Your task to perform on an android device: set default search engine in the chrome app Image 0: 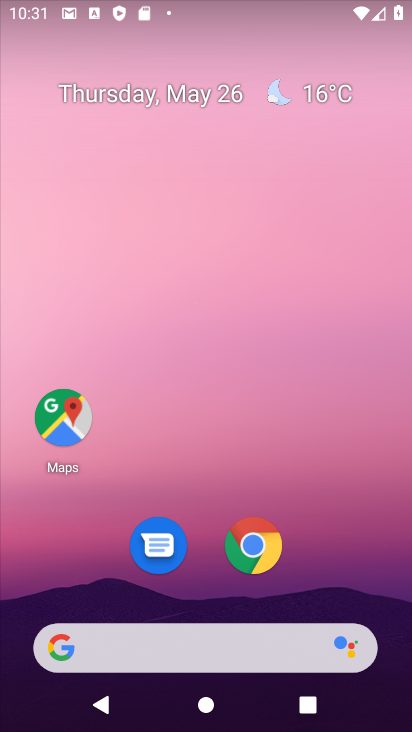
Step 0: press home button
Your task to perform on an android device: set default search engine in the chrome app Image 1: 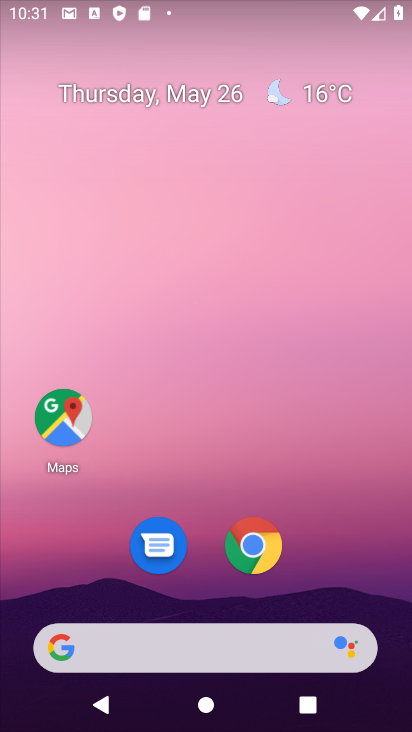
Step 1: click (245, 549)
Your task to perform on an android device: set default search engine in the chrome app Image 2: 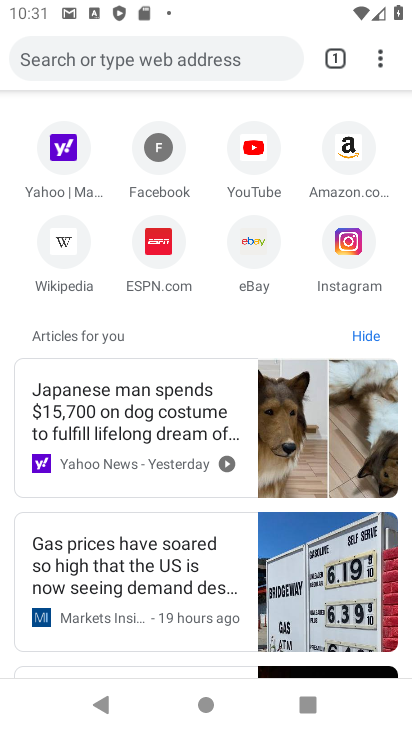
Step 2: drag from (385, 56) to (183, 499)
Your task to perform on an android device: set default search engine in the chrome app Image 3: 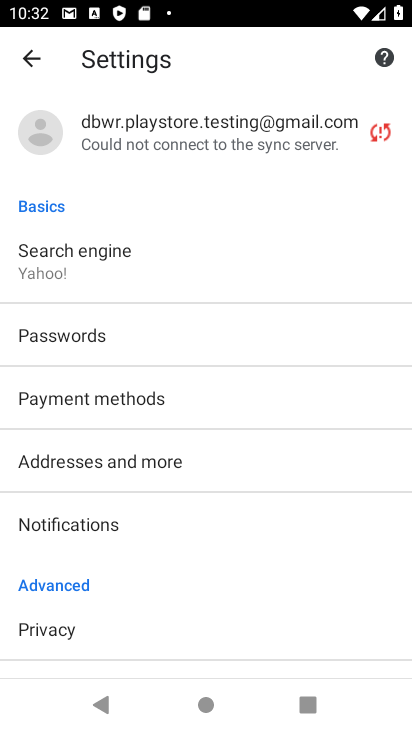
Step 3: click (36, 267)
Your task to perform on an android device: set default search engine in the chrome app Image 4: 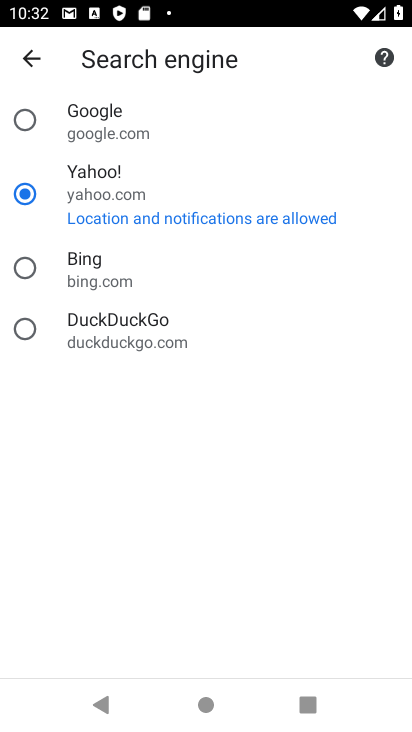
Step 4: click (27, 277)
Your task to perform on an android device: set default search engine in the chrome app Image 5: 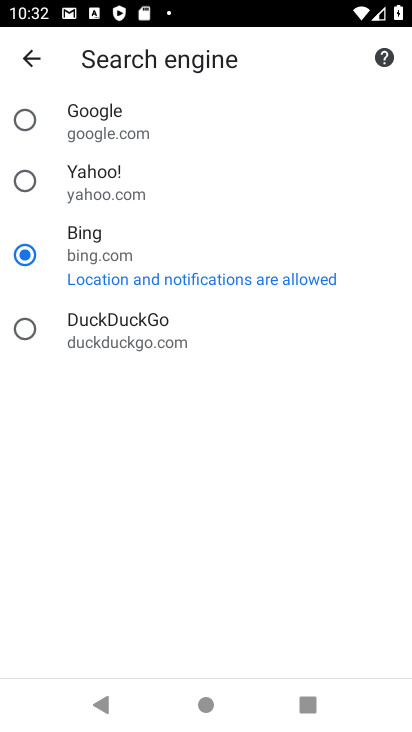
Step 5: task complete